Your task to perform on an android device: How much does a 3 bedroom apartment rent for in Miami? Image 0: 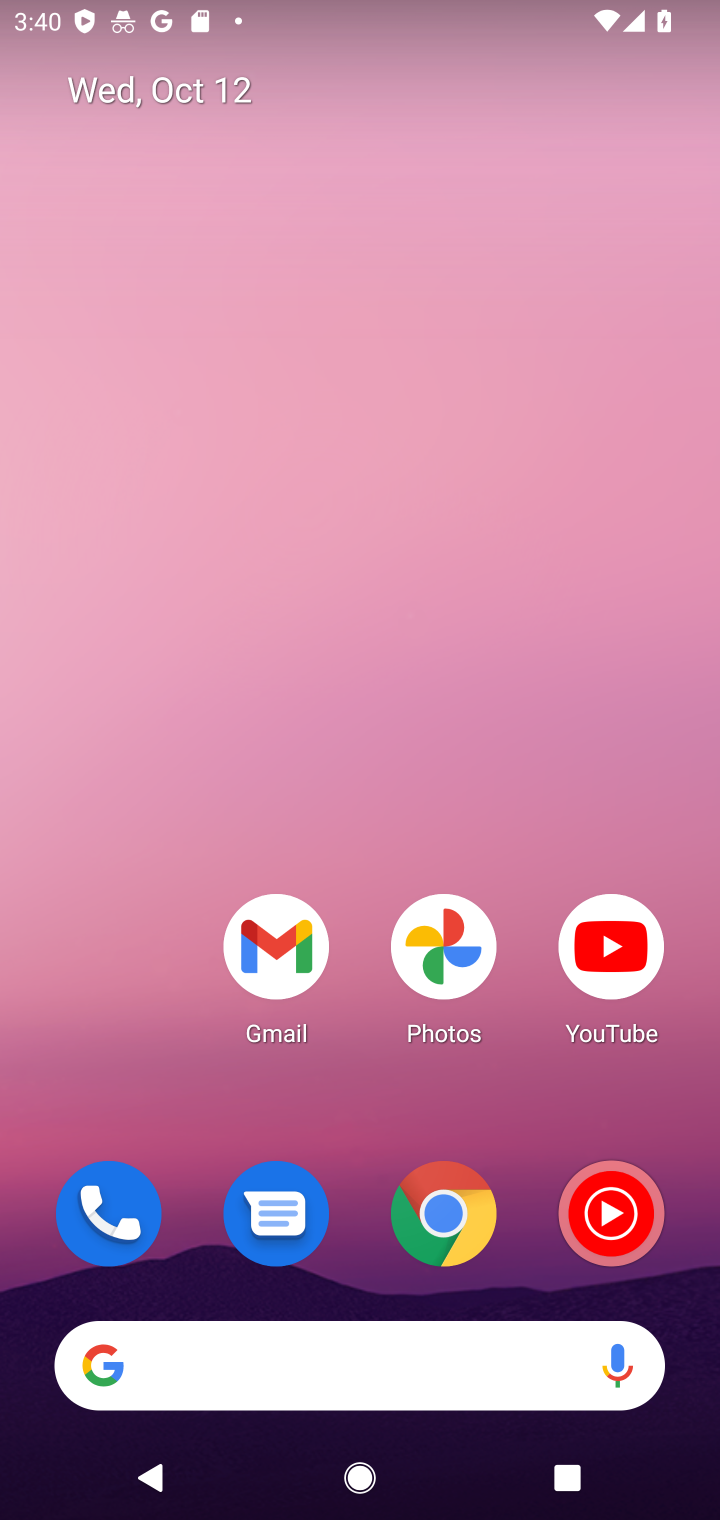
Step 0: click (330, 1362)
Your task to perform on an android device: How much does a 3 bedroom apartment rent for in Miami? Image 1: 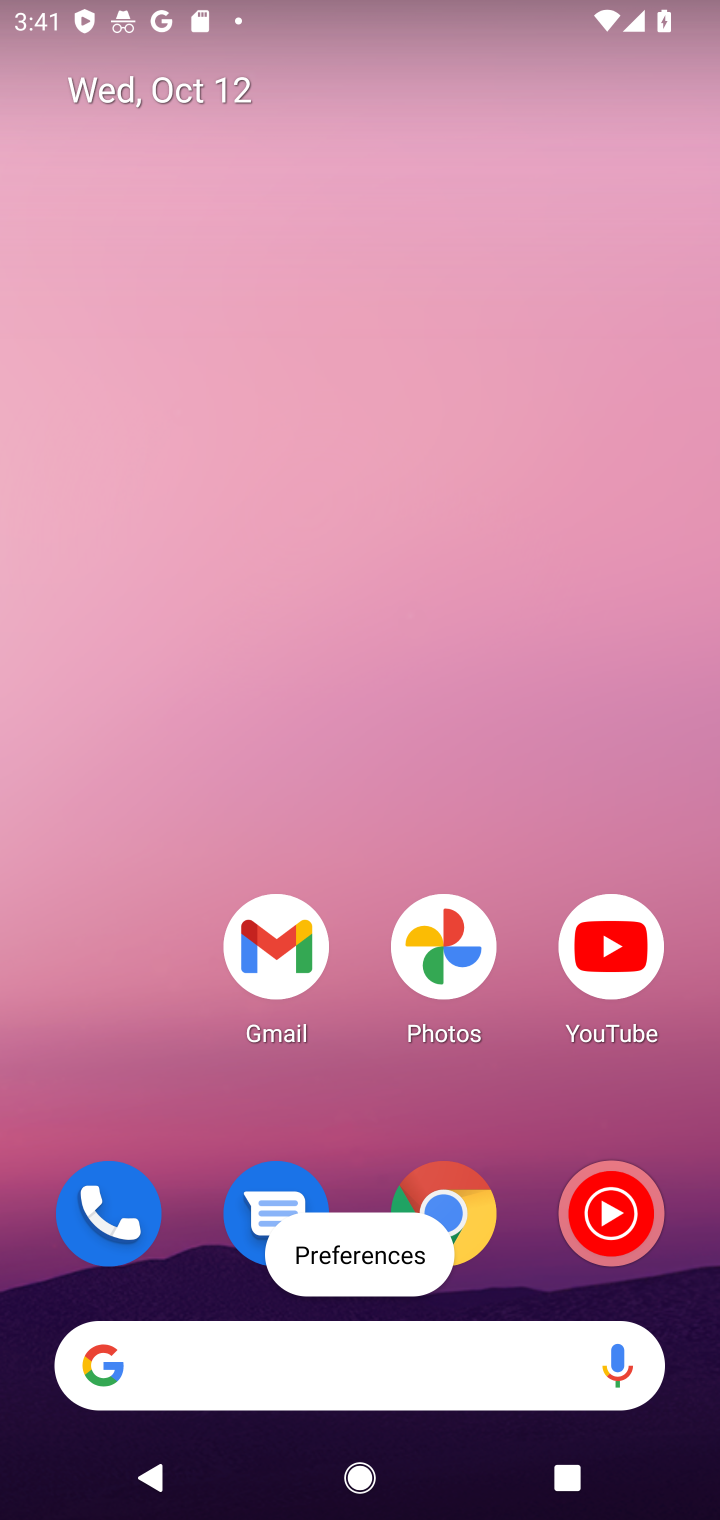
Step 1: click (328, 1359)
Your task to perform on an android device: How much does a 3 bedroom apartment rent for in Miami? Image 2: 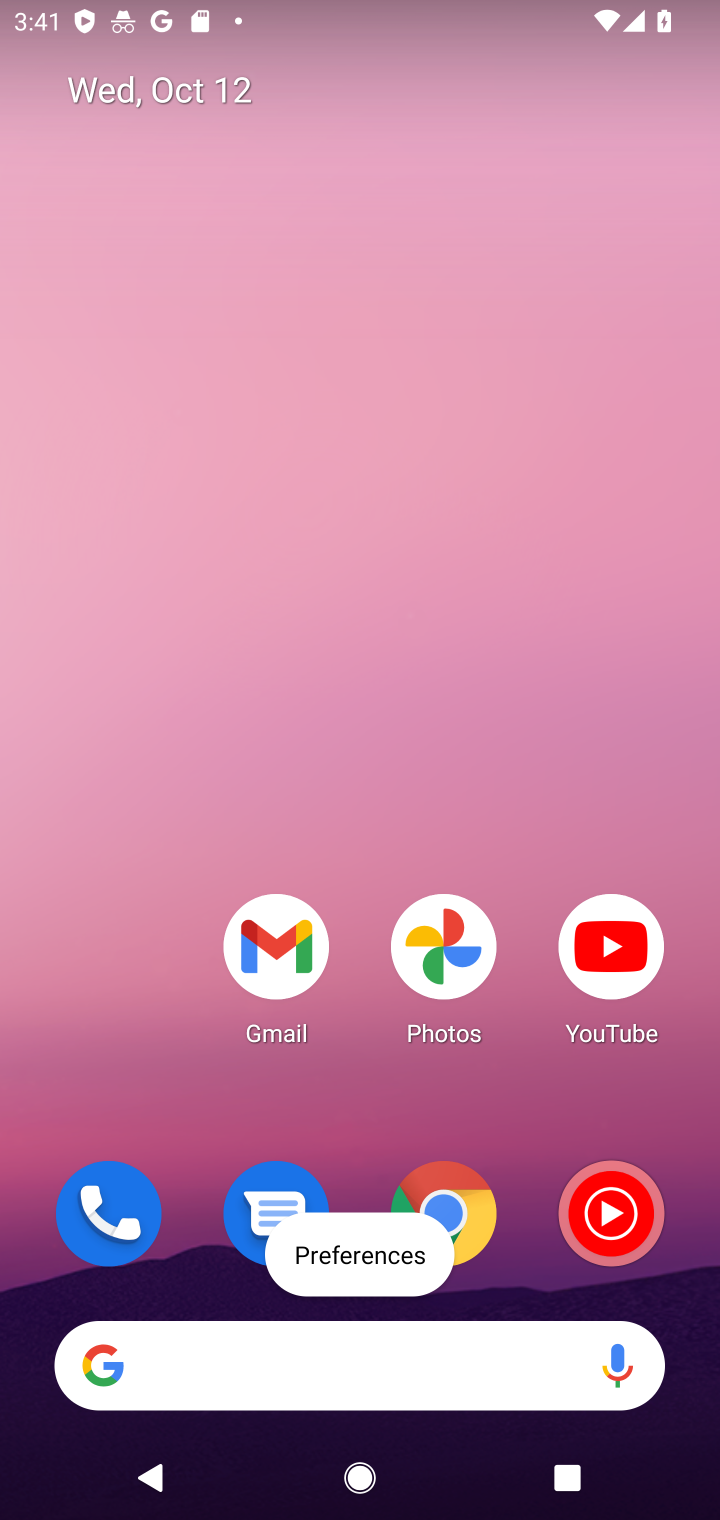
Step 2: click (277, 1364)
Your task to perform on an android device: How much does a 3 bedroom apartment rent for in Miami? Image 3: 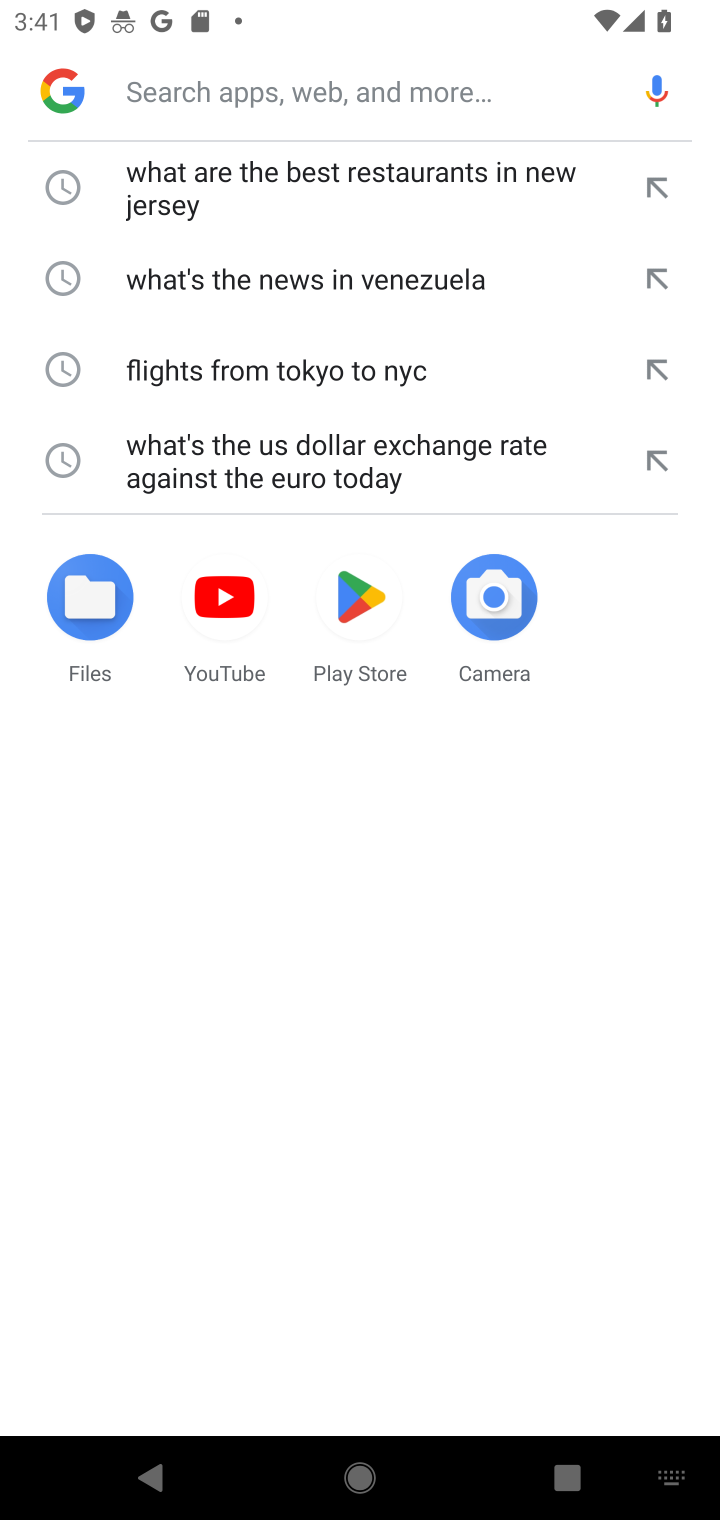
Step 3: click (134, 77)
Your task to perform on an android device: How much does a 3 bedroom apartment rent for in Miami? Image 4: 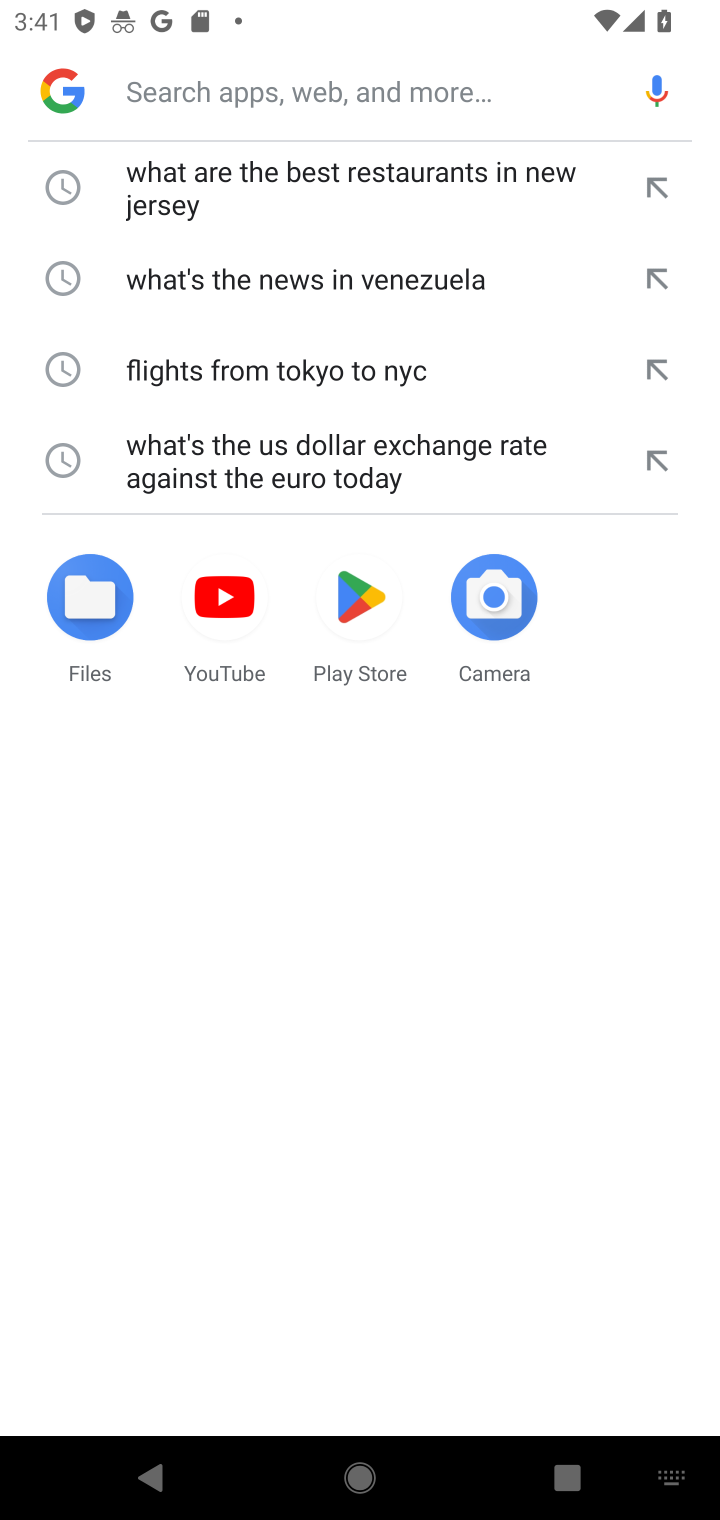
Step 4: type "How much does a 3 bedroom apartment rent for in Miami?"
Your task to perform on an android device: How much does a 3 bedroom apartment rent for in Miami? Image 5: 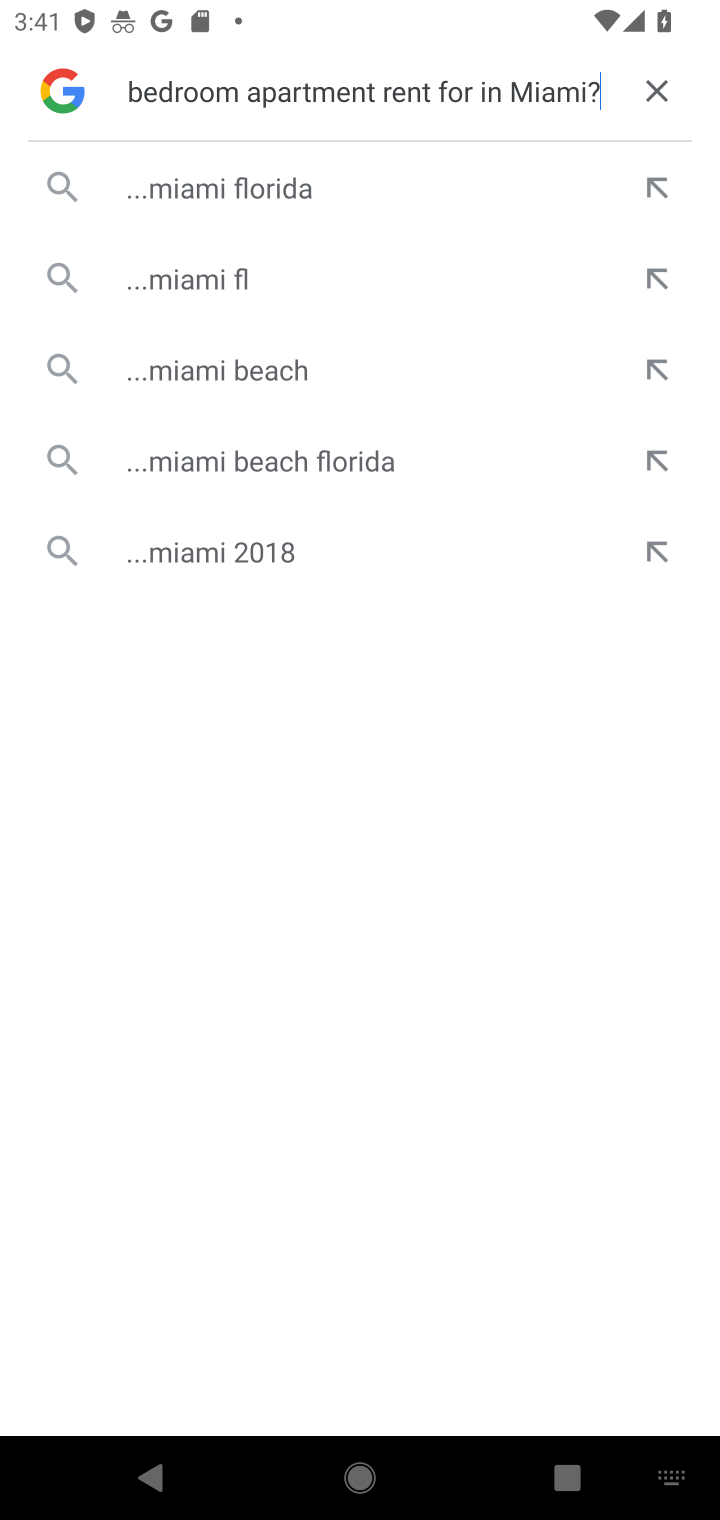
Step 5: click (213, 181)
Your task to perform on an android device: How much does a 3 bedroom apartment rent for in Miami? Image 6: 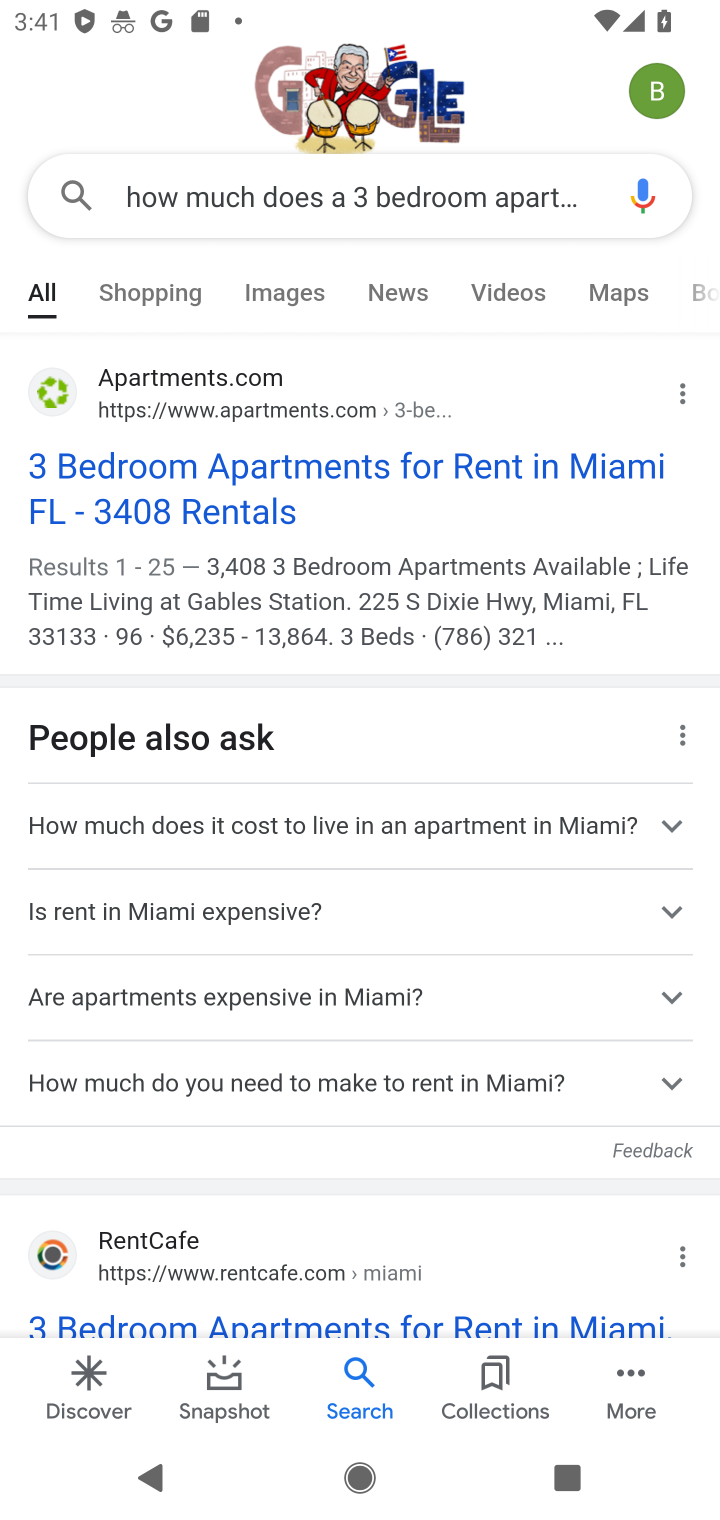
Step 6: task complete